Your task to perform on an android device: allow cookies in the chrome app Image 0: 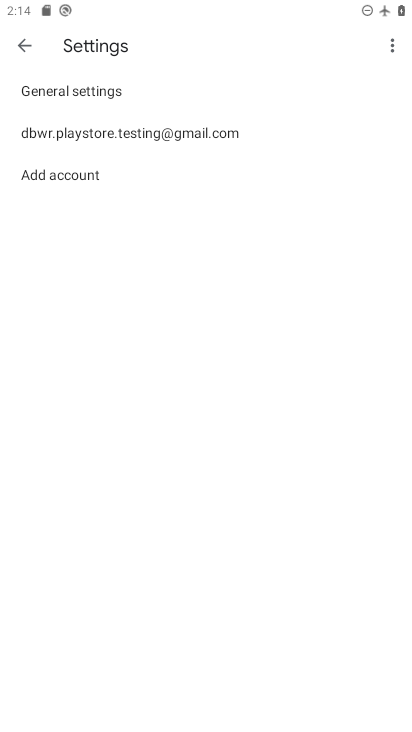
Step 0: press home button
Your task to perform on an android device: allow cookies in the chrome app Image 1: 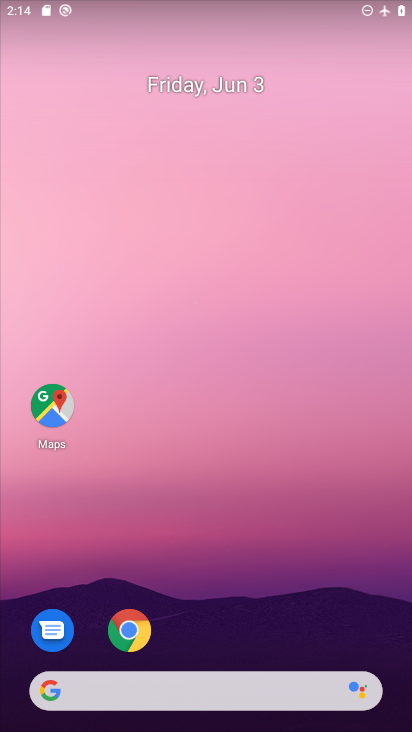
Step 1: click (128, 629)
Your task to perform on an android device: allow cookies in the chrome app Image 2: 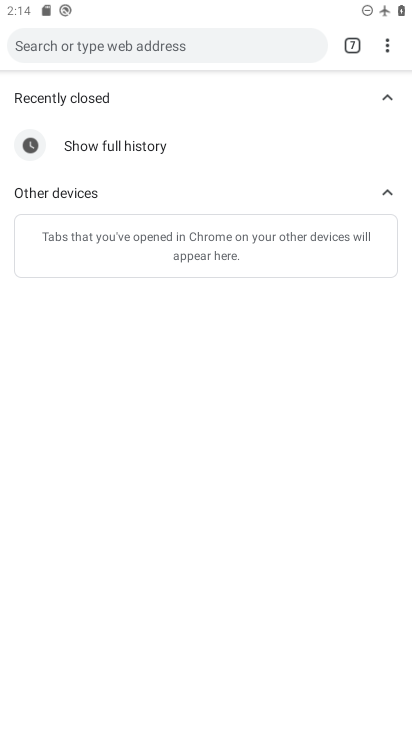
Step 2: click (388, 51)
Your task to perform on an android device: allow cookies in the chrome app Image 3: 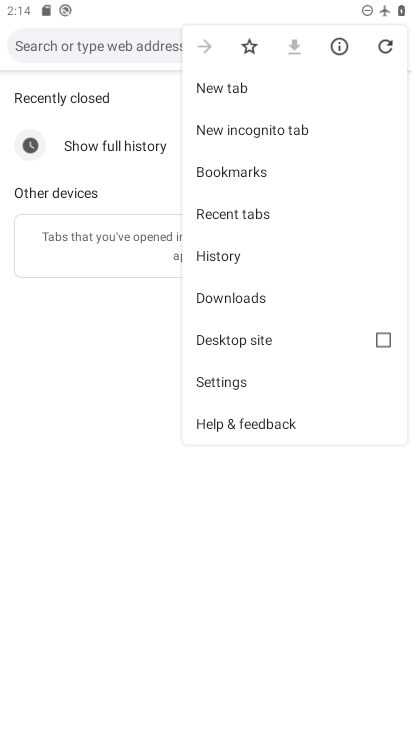
Step 3: click (221, 380)
Your task to perform on an android device: allow cookies in the chrome app Image 4: 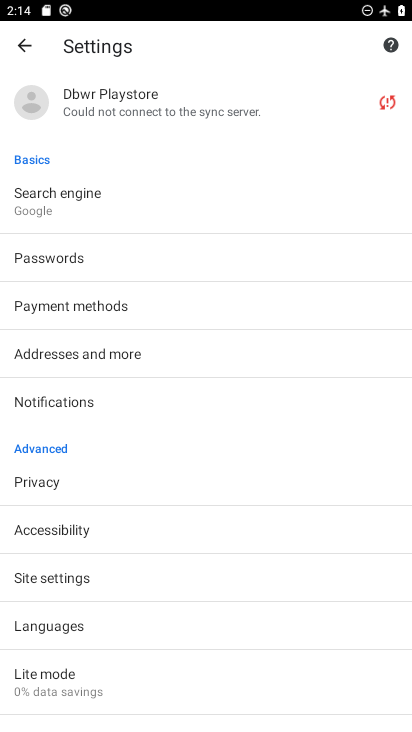
Step 4: click (67, 578)
Your task to perform on an android device: allow cookies in the chrome app Image 5: 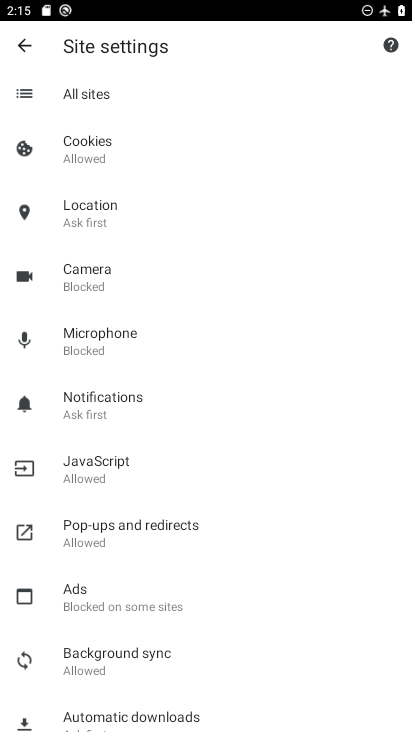
Step 5: click (82, 153)
Your task to perform on an android device: allow cookies in the chrome app Image 6: 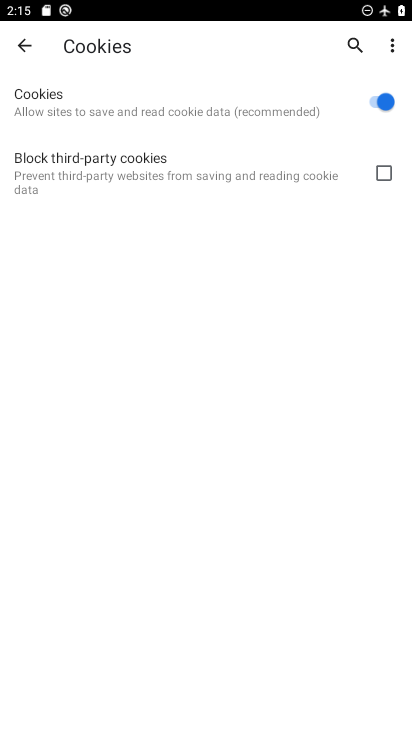
Step 6: task complete